Your task to perform on an android device: turn off airplane mode Image 0: 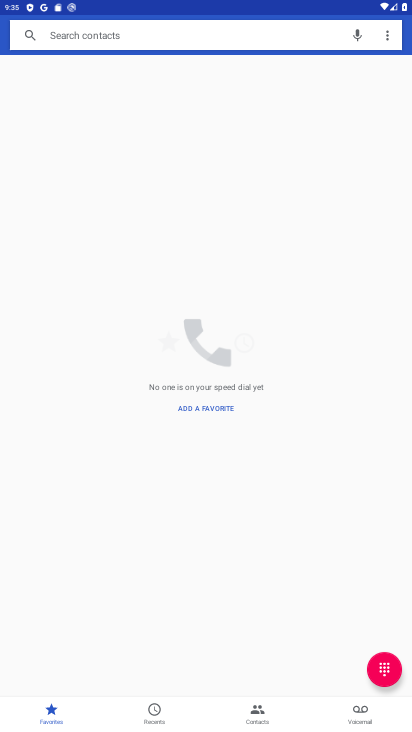
Step 0: press home button
Your task to perform on an android device: turn off airplane mode Image 1: 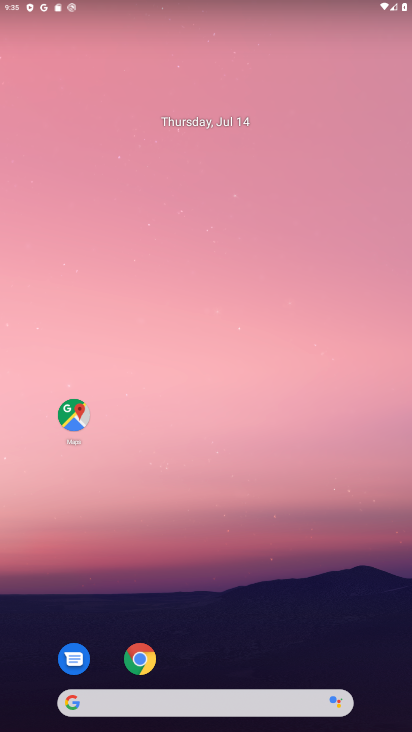
Step 1: drag from (291, 511) to (216, 131)
Your task to perform on an android device: turn off airplane mode Image 2: 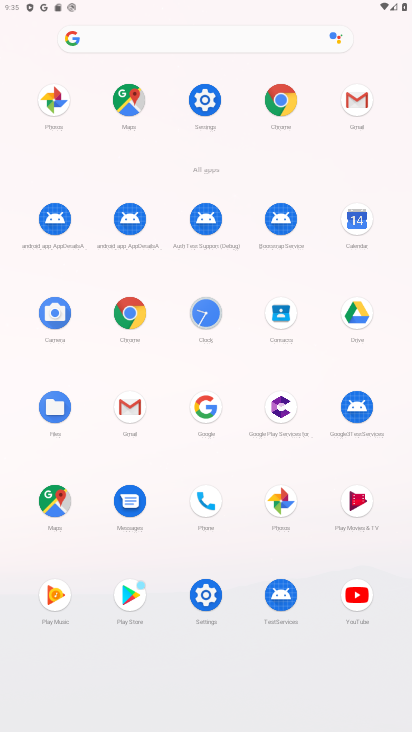
Step 2: click (211, 103)
Your task to perform on an android device: turn off airplane mode Image 3: 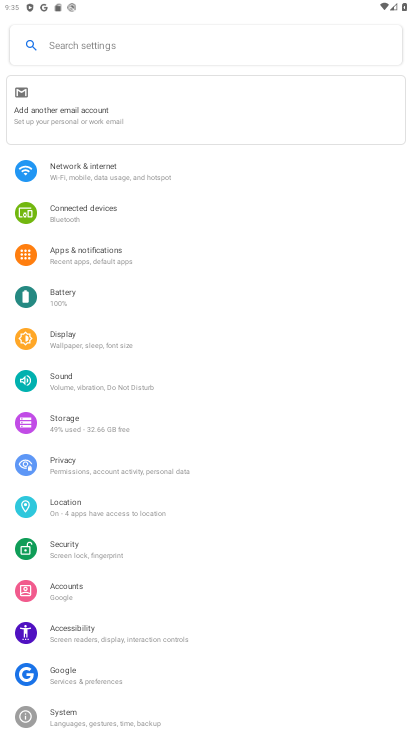
Step 3: click (110, 176)
Your task to perform on an android device: turn off airplane mode Image 4: 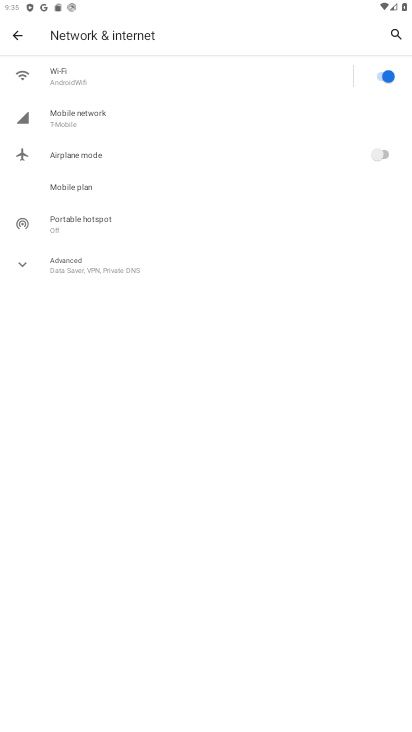
Step 4: task complete